Your task to perform on an android device: Open settings Image 0: 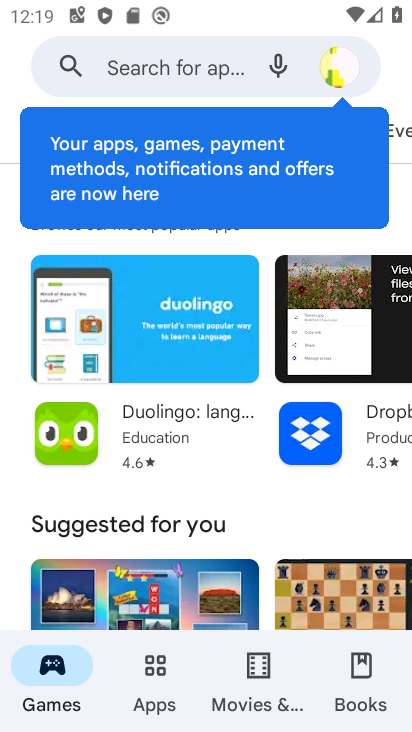
Step 0: press home button
Your task to perform on an android device: Open settings Image 1: 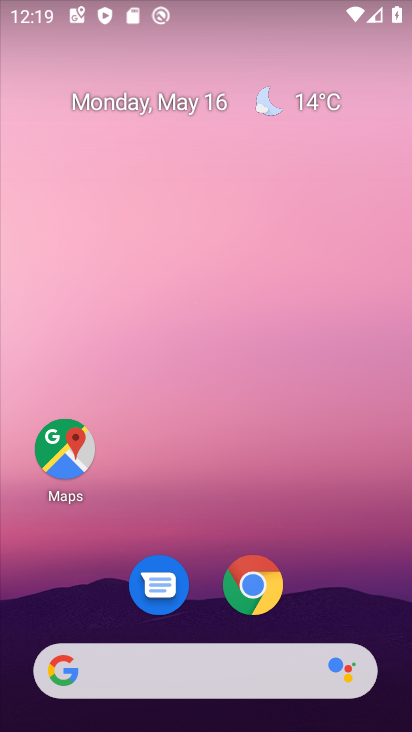
Step 1: drag from (242, 514) to (268, 34)
Your task to perform on an android device: Open settings Image 2: 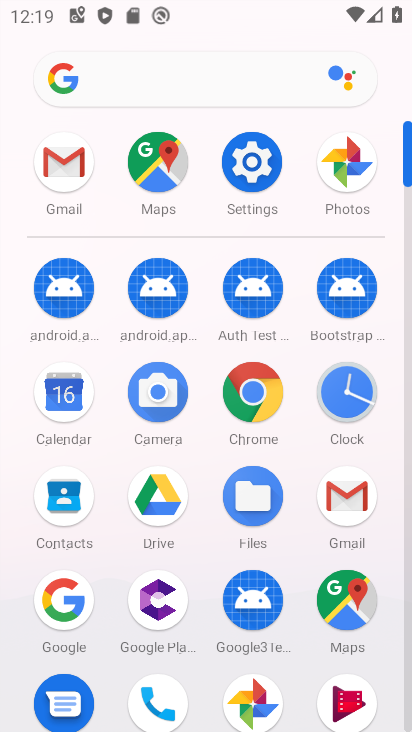
Step 2: click (263, 157)
Your task to perform on an android device: Open settings Image 3: 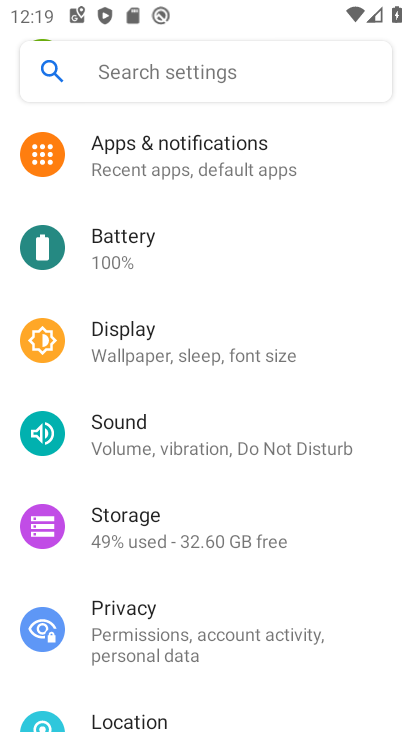
Step 3: task complete